Your task to perform on an android device: empty trash in the gmail app Image 0: 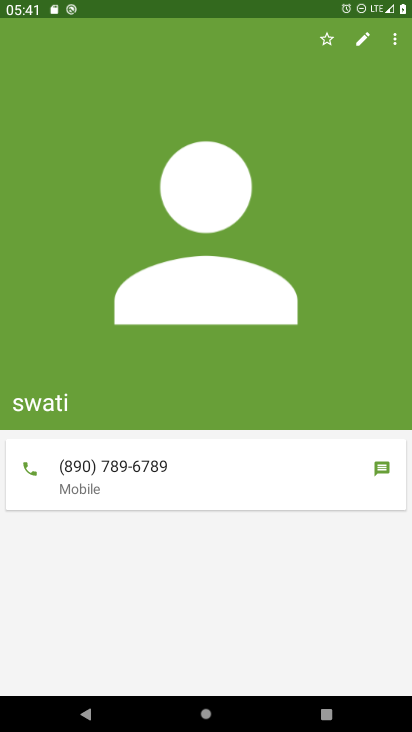
Step 0: press home button
Your task to perform on an android device: empty trash in the gmail app Image 1: 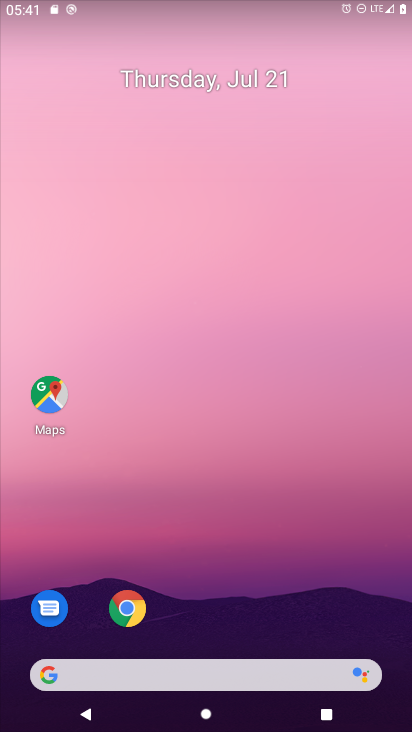
Step 1: drag from (220, 665) to (347, 104)
Your task to perform on an android device: empty trash in the gmail app Image 2: 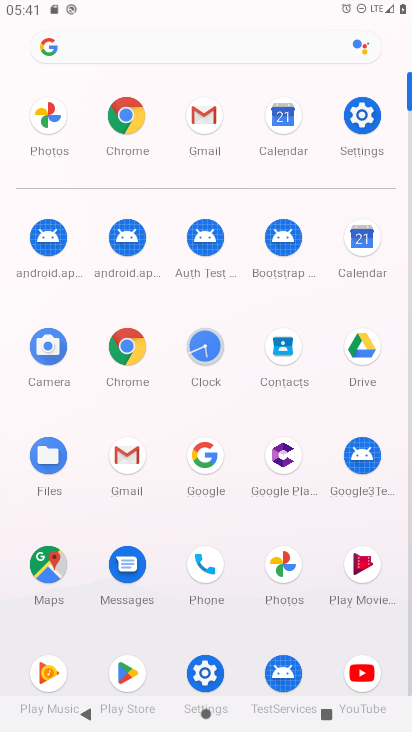
Step 2: click (127, 448)
Your task to perform on an android device: empty trash in the gmail app Image 3: 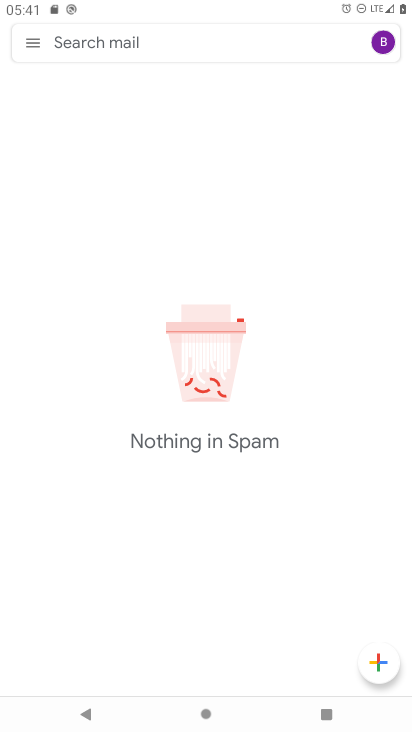
Step 3: click (27, 37)
Your task to perform on an android device: empty trash in the gmail app Image 4: 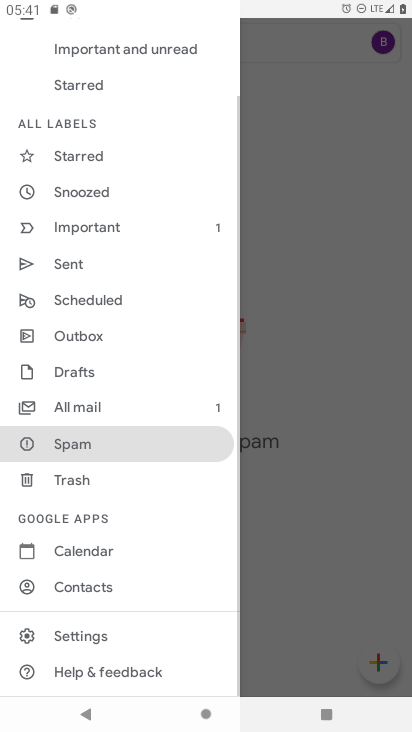
Step 4: click (84, 482)
Your task to perform on an android device: empty trash in the gmail app Image 5: 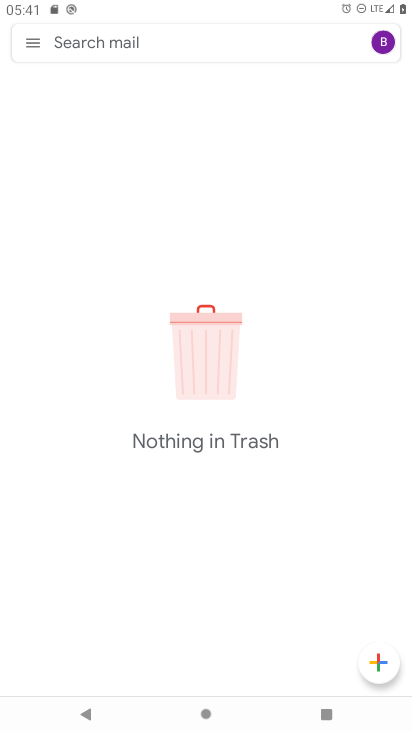
Step 5: task complete